Your task to perform on an android device: open a bookmark in the chrome app Image 0: 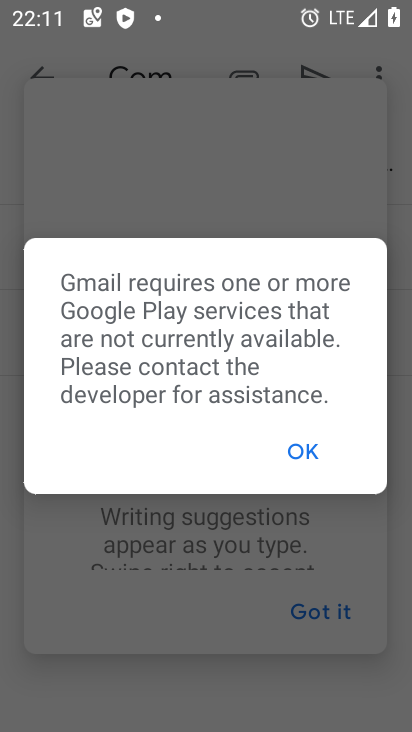
Step 0: press home button
Your task to perform on an android device: open a bookmark in the chrome app Image 1: 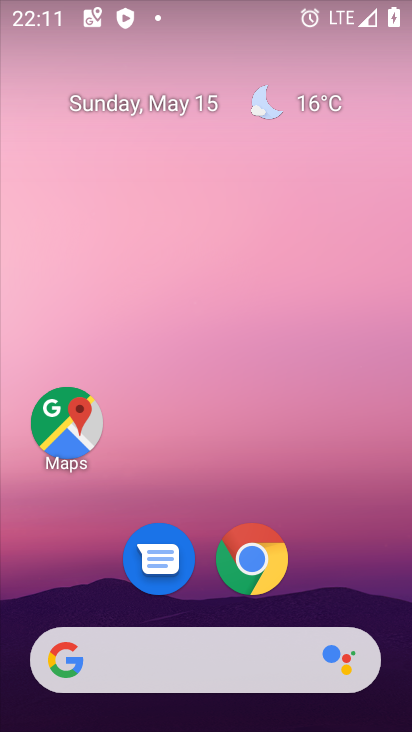
Step 1: click (256, 562)
Your task to perform on an android device: open a bookmark in the chrome app Image 2: 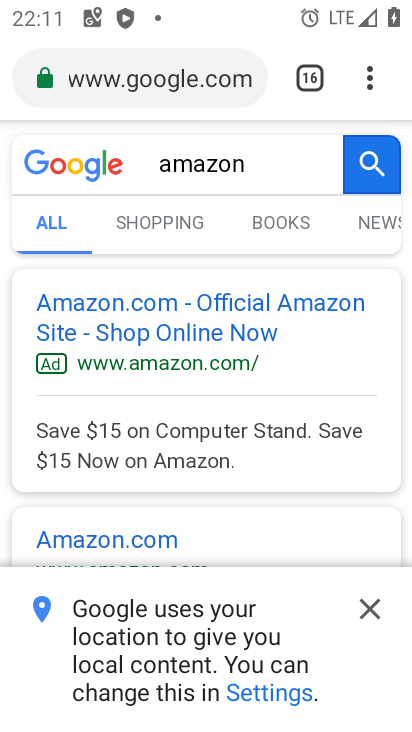
Step 2: click (364, 70)
Your task to perform on an android device: open a bookmark in the chrome app Image 3: 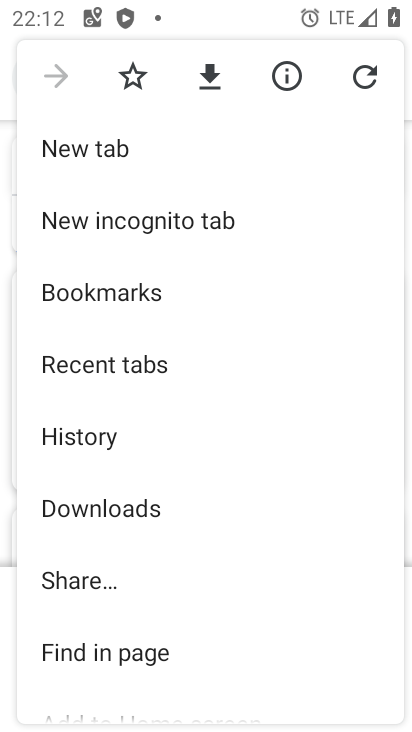
Step 3: click (126, 285)
Your task to perform on an android device: open a bookmark in the chrome app Image 4: 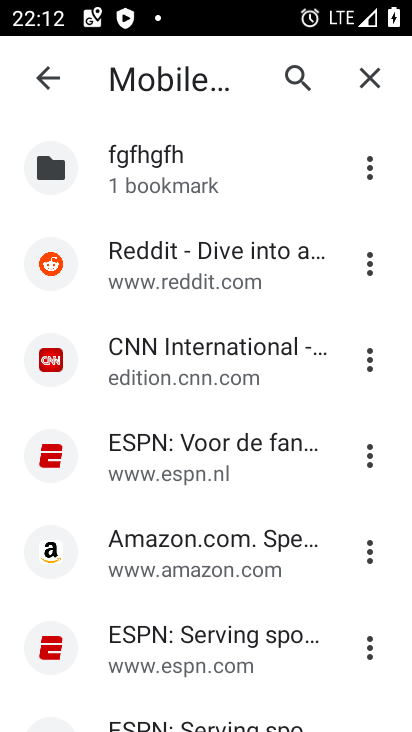
Step 4: task complete